Your task to perform on an android device: turn off picture-in-picture Image 0: 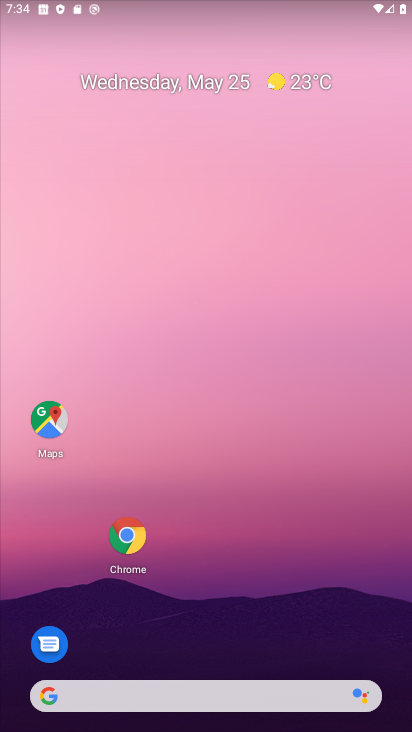
Step 0: click (135, 589)
Your task to perform on an android device: turn off picture-in-picture Image 1: 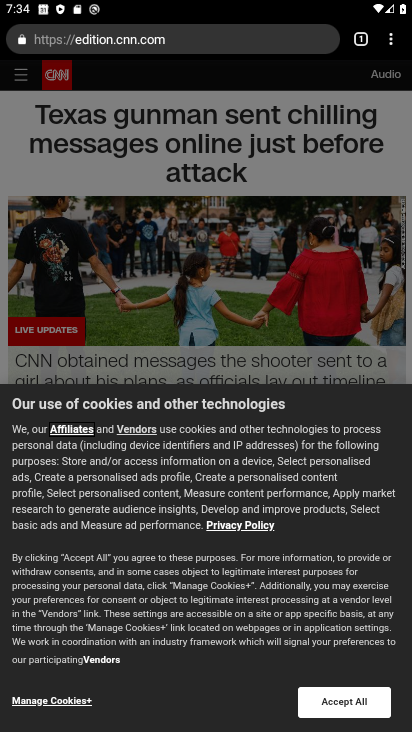
Step 1: press home button
Your task to perform on an android device: turn off picture-in-picture Image 2: 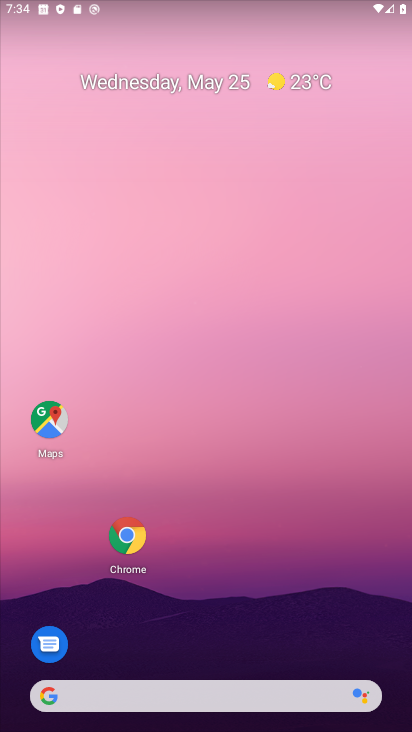
Step 2: click (124, 530)
Your task to perform on an android device: turn off picture-in-picture Image 3: 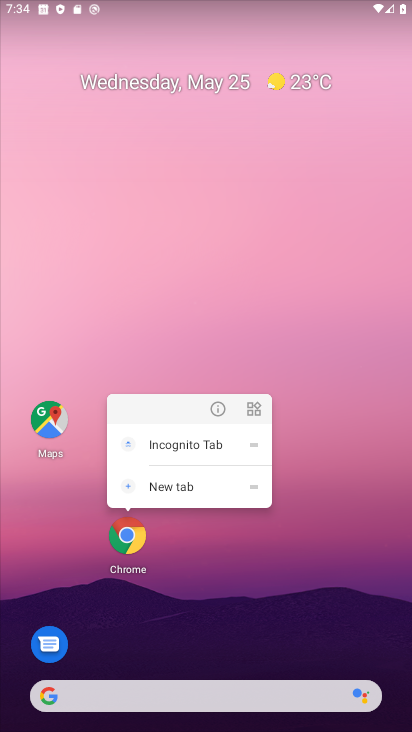
Step 3: click (217, 406)
Your task to perform on an android device: turn off picture-in-picture Image 4: 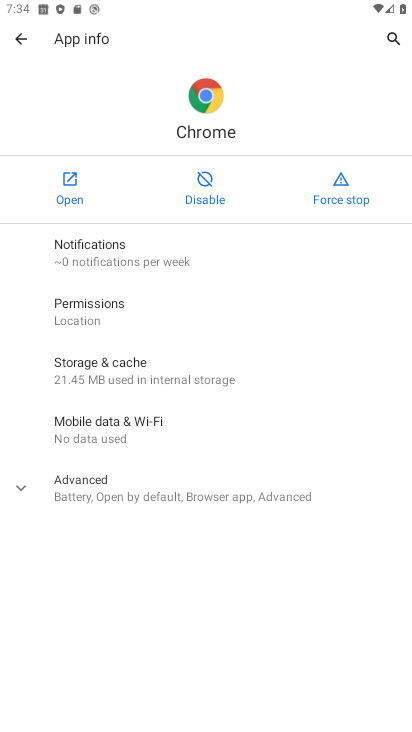
Step 4: click (103, 494)
Your task to perform on an android device: turn off picture-in-picture Image 5: 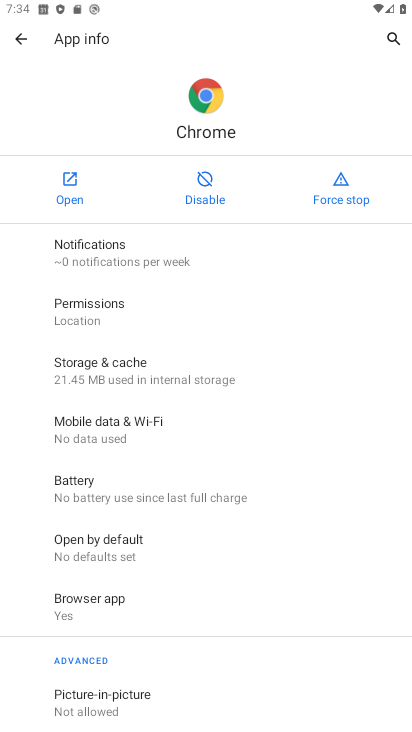
Step 5: drag from (221, 607) to (250, 259)
Your task to perform on an android device: turn off picture-in-picture Image 6: 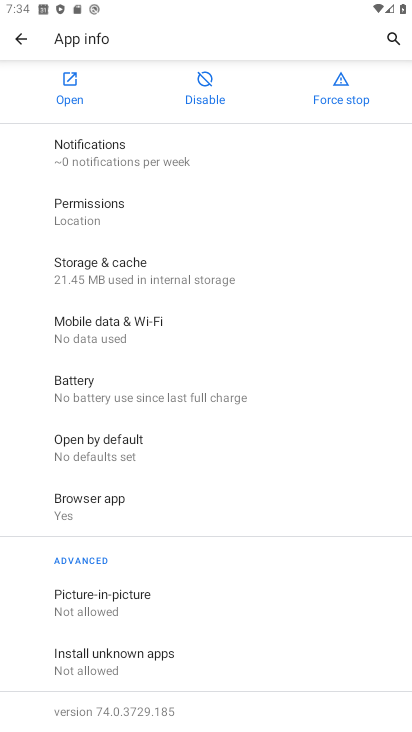
Step 6: click (107, 604)
Your task to perform on an android device: turn off picture-in-picture Image 7: 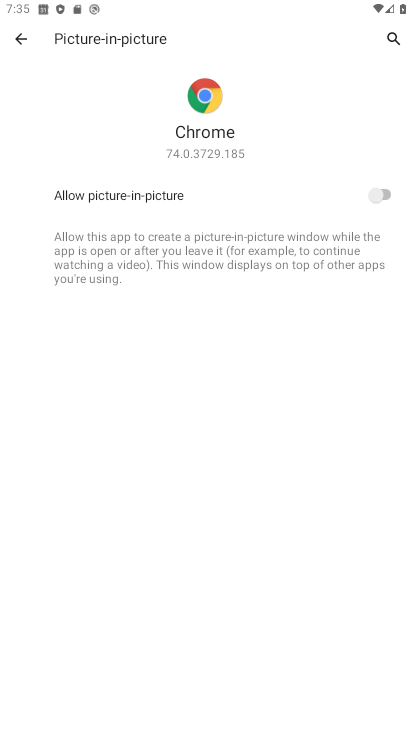
Step 7: task complete